Your task to perform on an android device: Open Google Chrome Image 0: 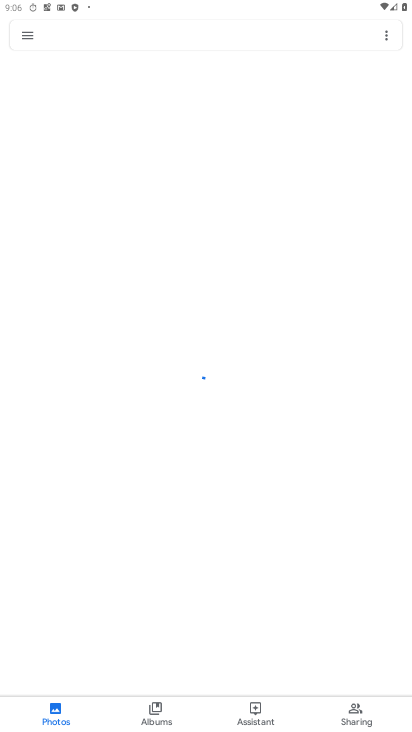
Step 0: press home button
Your task to perform on an android device: Open Google Chrome Image 1: 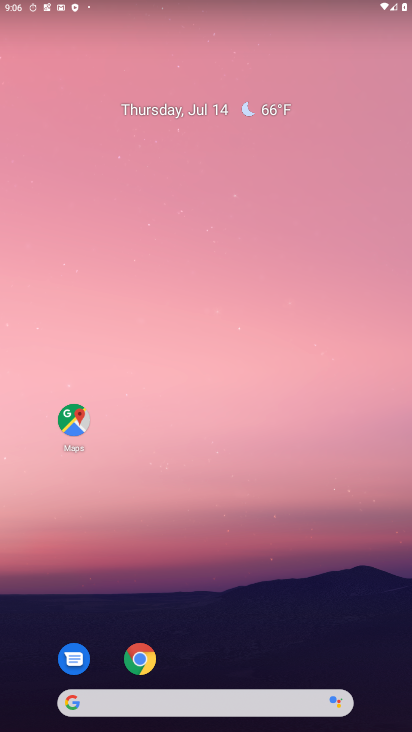
Step 1: drag from (267, 677) to (190, 21)
Your task to perform on an android device: Open Google Chrome Image 2: 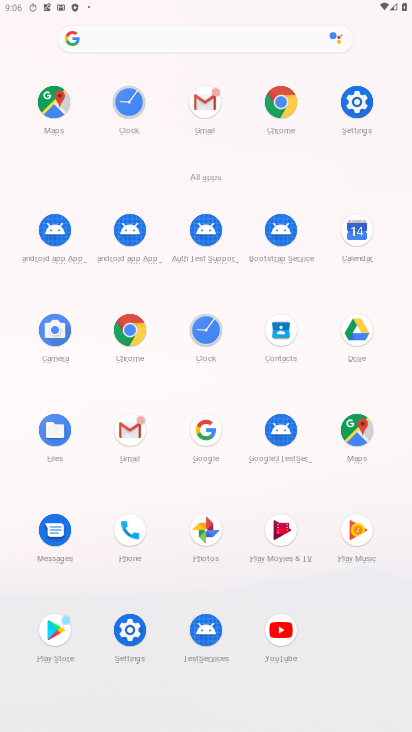
Step 2: click (288, 99)
Your task to perform on an android device: Open Google Chrome Image 3: 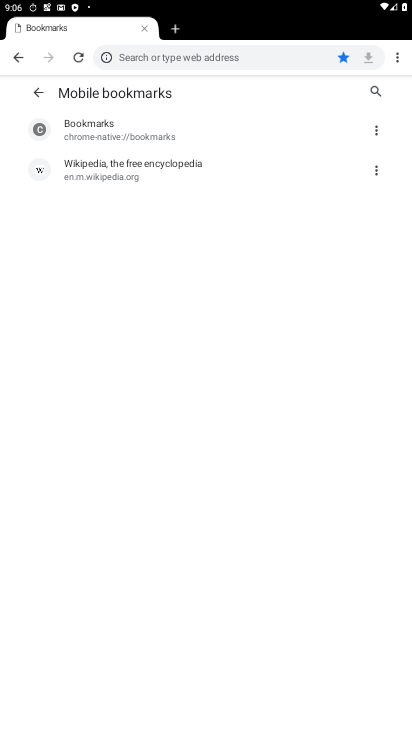
Step 3: task complete